Your task to perform on an android device: Open the phone app and click the voicemail tab. Image 0: 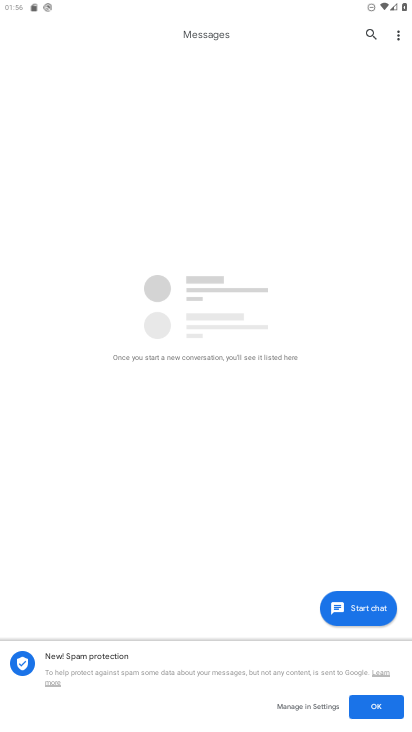
Step 0: press home button
Your task to perform on an android device: Open the phone app and click the voicemail tab. Image 1: 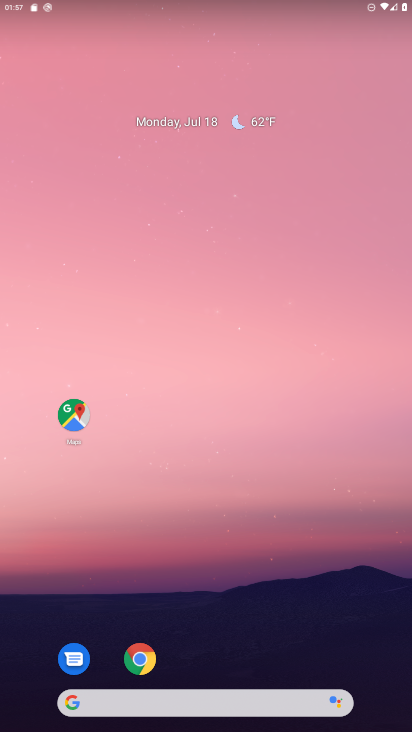
Step 1: drag from (342, 580) to (216, 67)
Your task to perform on an android device: Open the phone app and click the voicemail tab. Image 2: 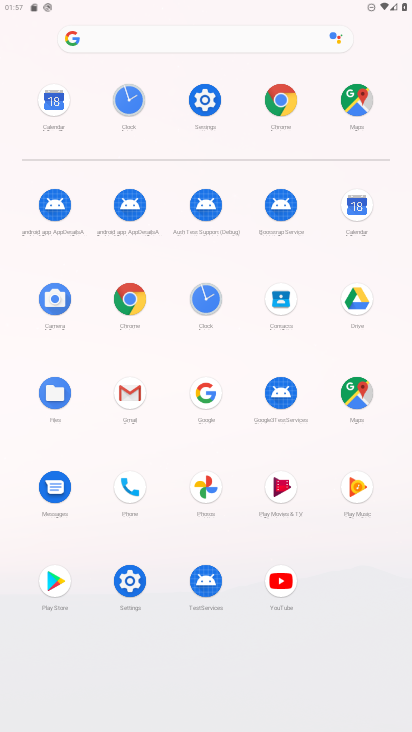
Step 2: click (133, 485)
Your task to perform on an android device: Open the phone app and click the voicemail tab. Image 3: 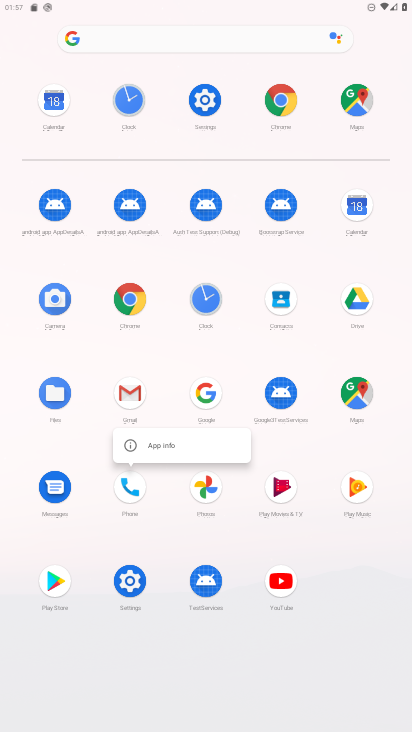
Step 3: click (126, 495)
Your task to perform on an android device: Open the phone app and click the voicemail tab. Image 4: 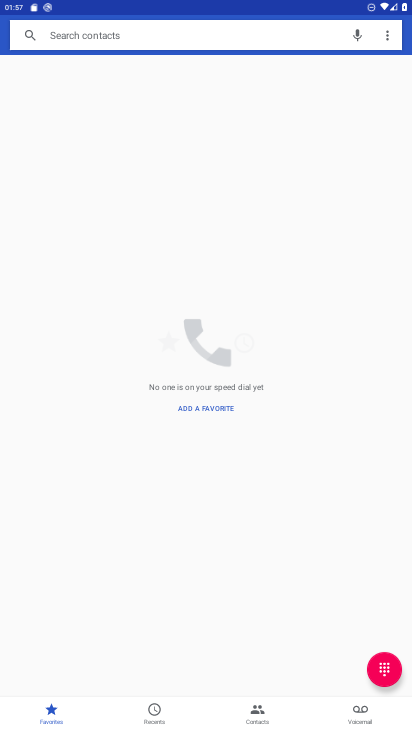
Step 4: click (367, 706)
Your task to perform on an android device: Open the phone app and click the voicemail tab. Image 5: 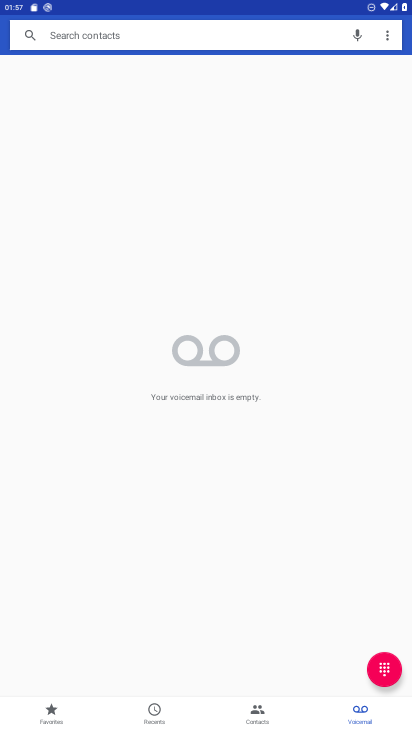
Step 5: task complete